Your task to perform on an android device: clear history in the chrome app Image 0: 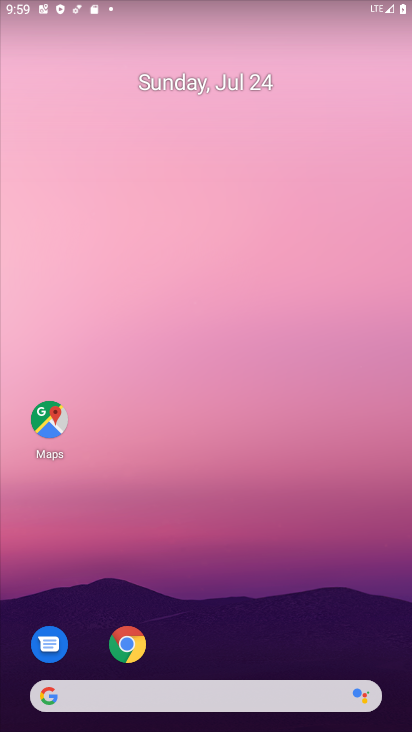
Step 0: click (117, 648)
Your task to perform on an android device: clear history in the chrome app Image 1: 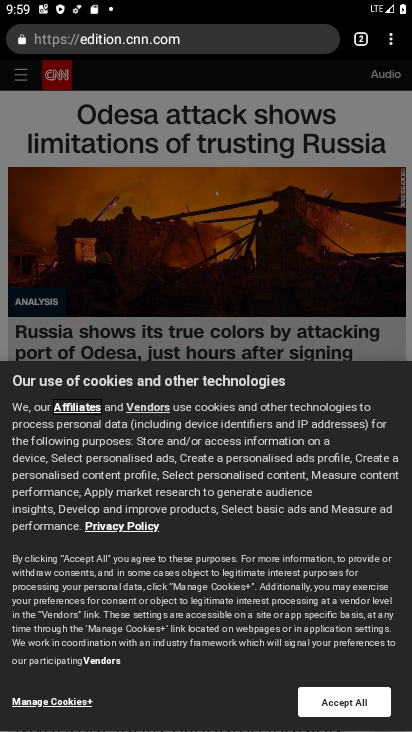
Step 1: click (392, 43)
Your task to perform on an android device: clear history in the chrome app Image 2: 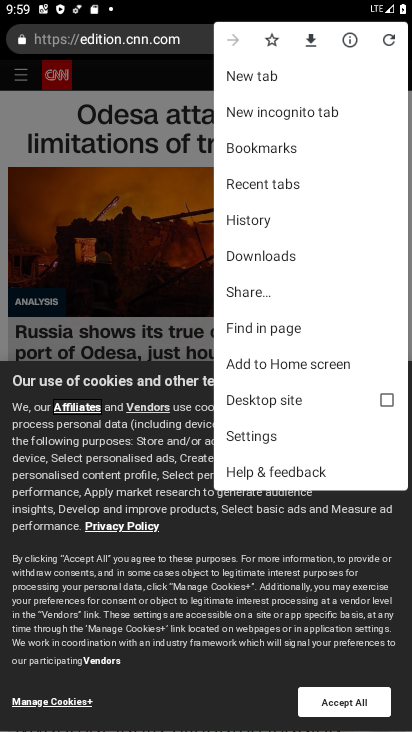
Step 2: click (245, 235)
Your task to perform on an android device: clear history in the chrome app Image 3: 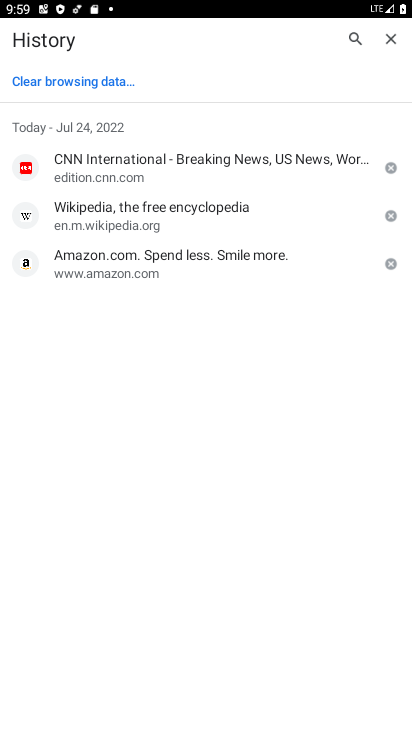
Step 3: click (95, 81)
Your task to perform on an android device: clear history in the chrome app Image 4: 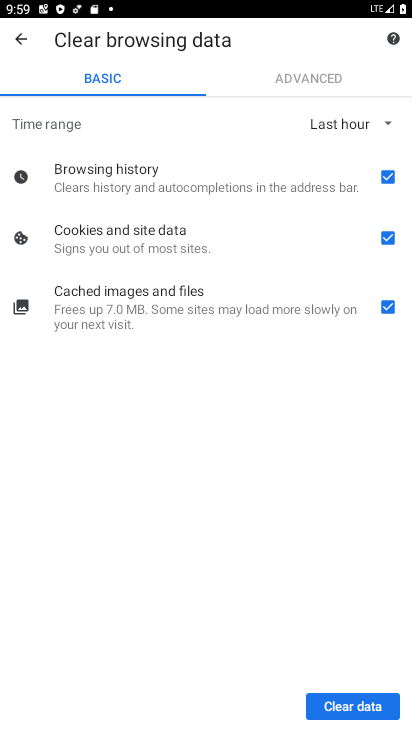
Step 4: click (355, 712)
Your task to perform on an android device: clear history in the chrome app Image 5: 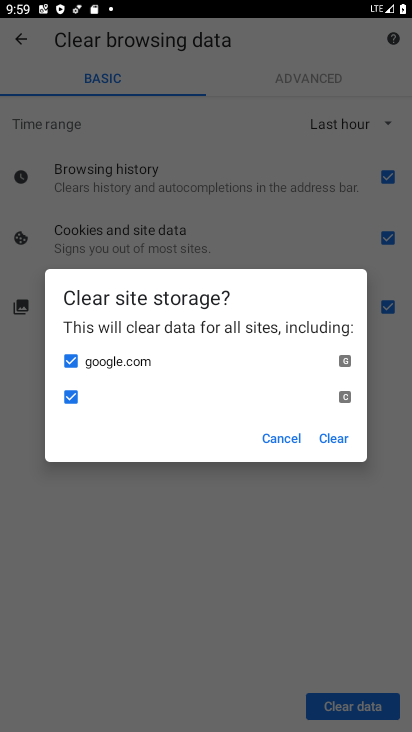
Step 5: click (340, 436)
Your task to perform on an android device: clear history in the chrome app Image 6: 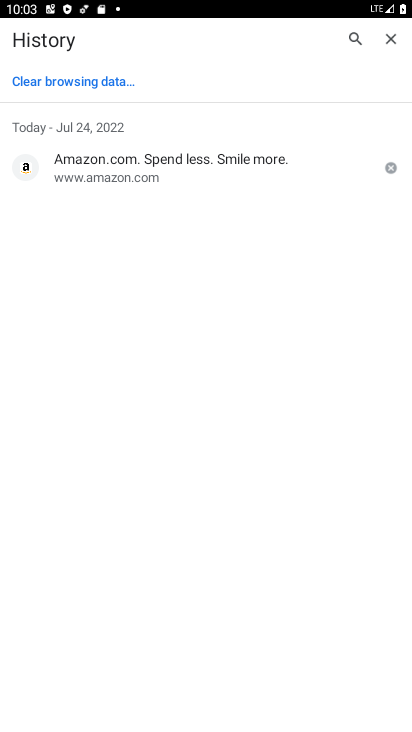
Step 6: task complete